Your task to perform on an android device: open a bookmark in the chrome app Image 0: 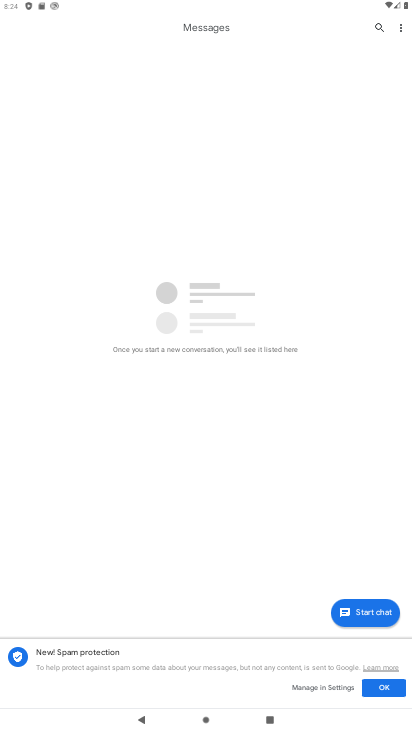
Step 0: press home button
Your task to perform on an android device: open a bookmark in the chrome app Image 1: 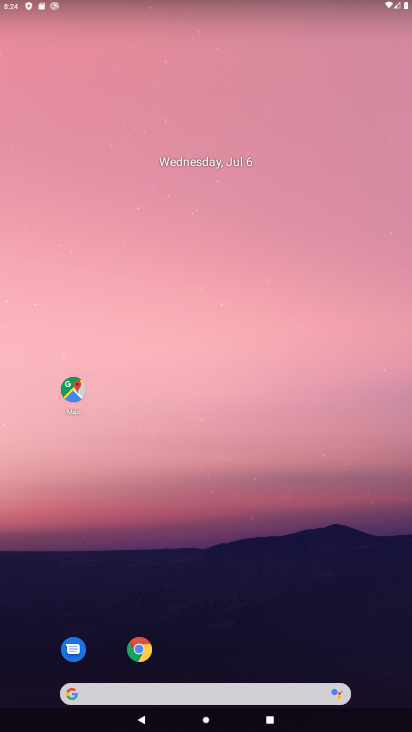
Step 1: drag from (199, 647) to (253, 149)
Your task to perform on an android device: open a bookmark in the chrome app Image 2: 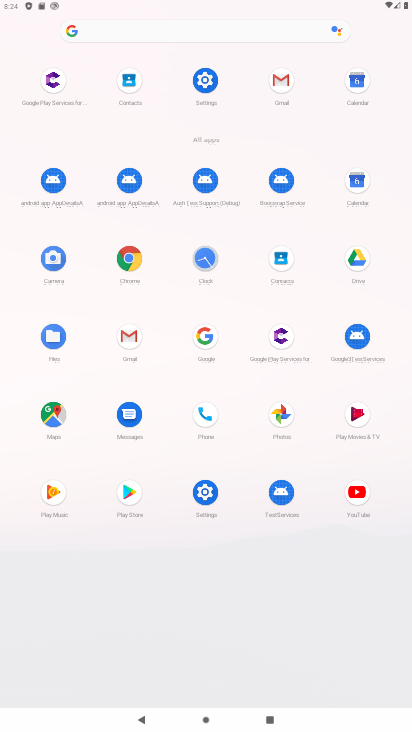
Step 2: click (129, 270)
Your task to perform on an android device: open a bookmark in the chrome app Image 3: 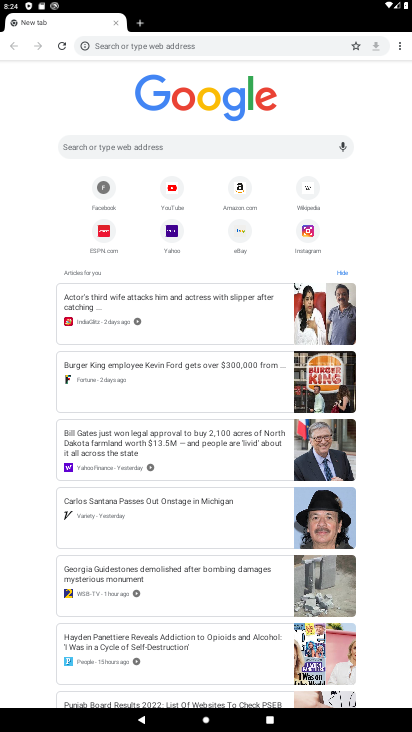
Step 3: click (240, 192)
Your task to perform on an android device: open a bookmark in the chrome app Image 4: 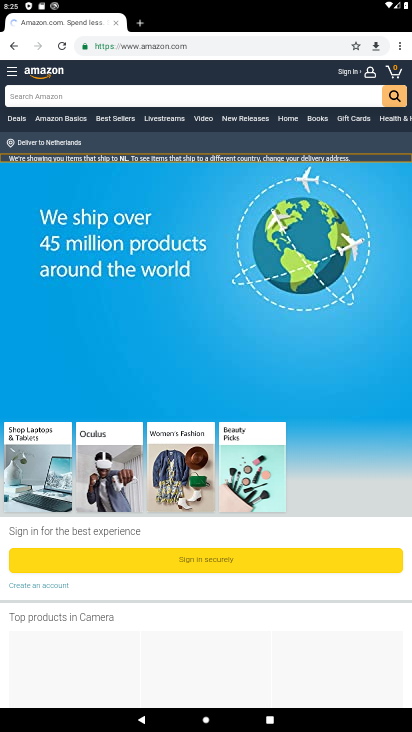
Step 4: task complete